Your task to perform on an android device: Search for Mexican restaurants on Maps Image 0: 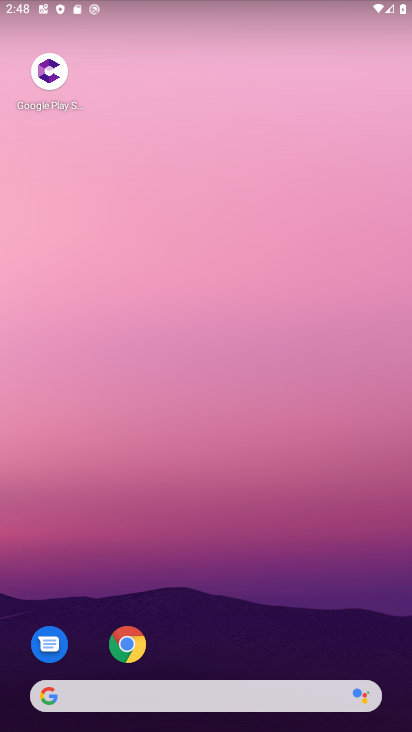
Step 0: drag from (222, 657) to (118, 275)
Your task to perform on an android device: Search for Mexican restaurants on Maps Image 1: 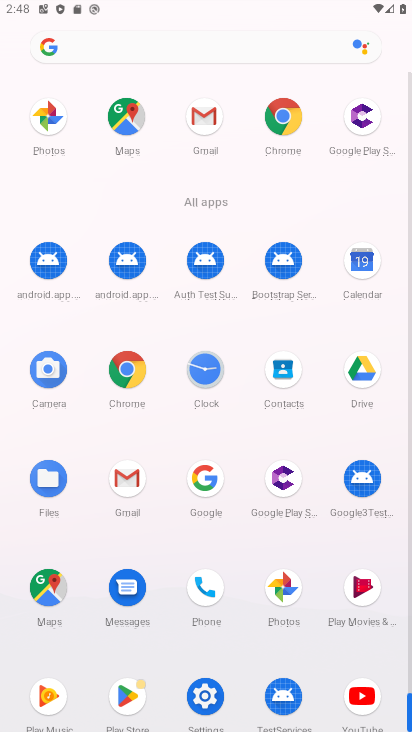
Step 1: click (59, 581)
Your task to perform on an android device: Search for Mexican restaurants on Maps Image 2: 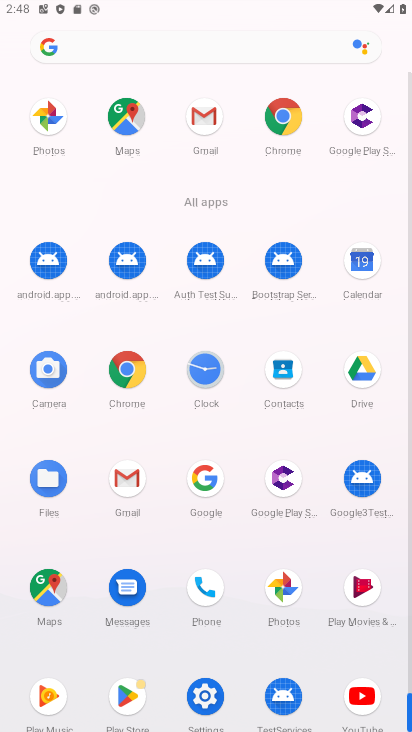
Step 2: click (55, 582)
Your task to perform on an android device: Search for Mexican restaurants on Maps Image 3: 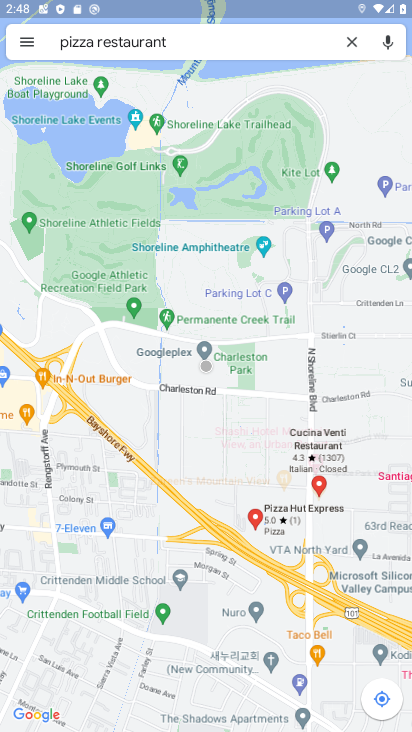
Step 3: click (177, 41)
Your task to perform on an android device: Search for Mexican restaurants on Maps Image 4: 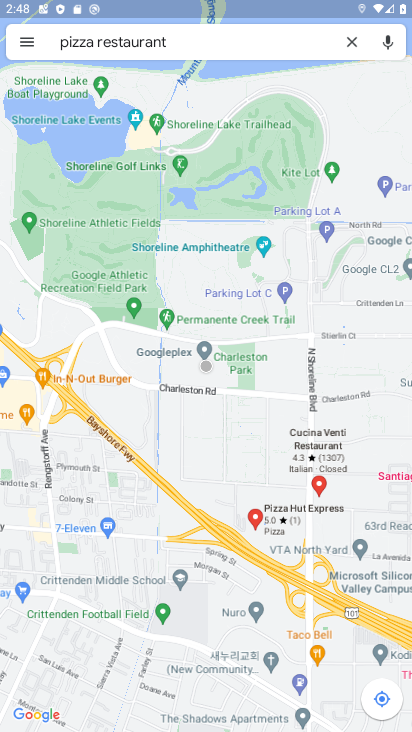
Step 4: click (177, 41)
Your task to perform on an android device: Search for Mexican restaurants on Maps Image 5: 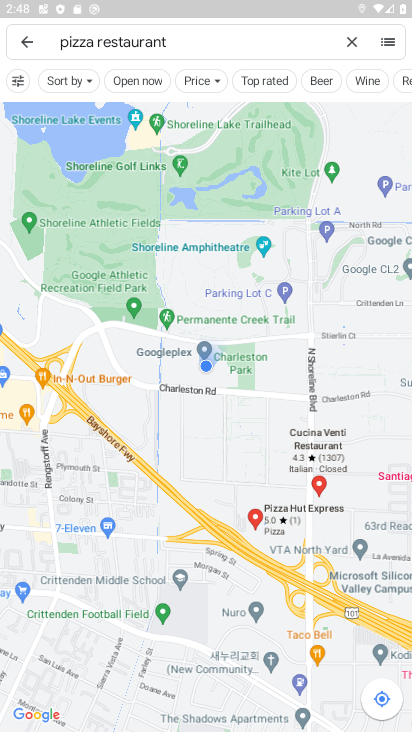
Step 5: click (351, 40)
Your task to perform on an android device: Search for Mexican restaurants on Maps Image 6: 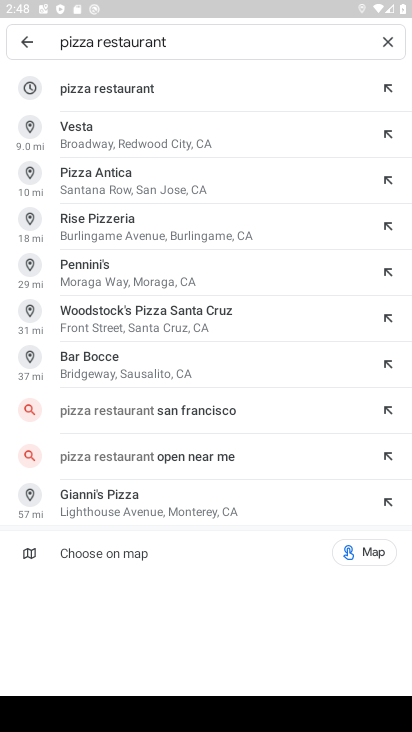
Step 6: click (384, 40)
Your task to perform on an android device: Search for Mexican restaurants on Maps Image 7: 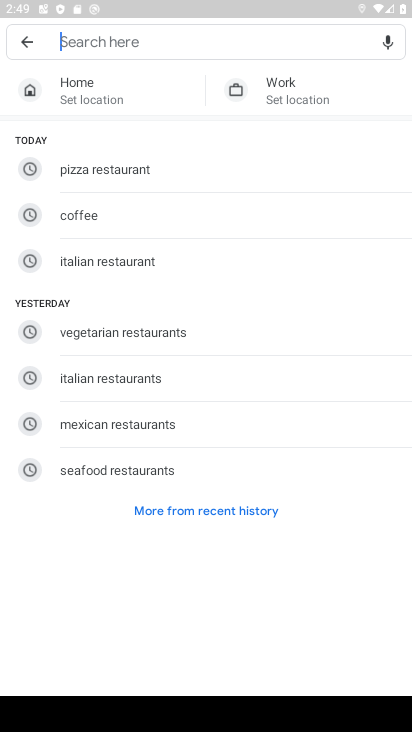
Step 7: click (127, 418)
Your task to perform on an android device: Search for Mexican restaurants on Maps Image 8: 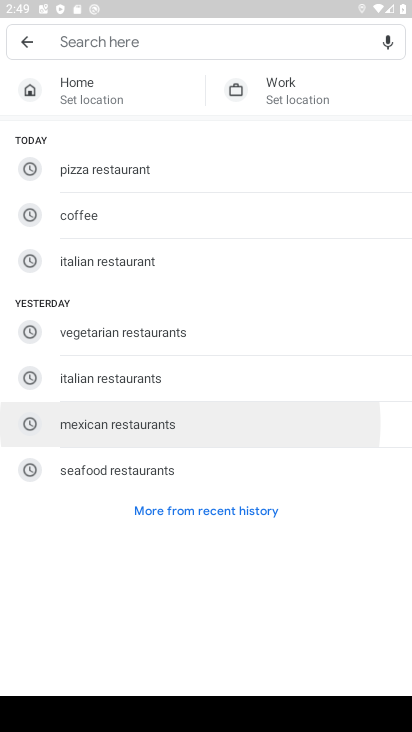
Step 8: click (128, 418)
Your task to perform on an android device: Search for Mexican restaurants on Maps Image 9: 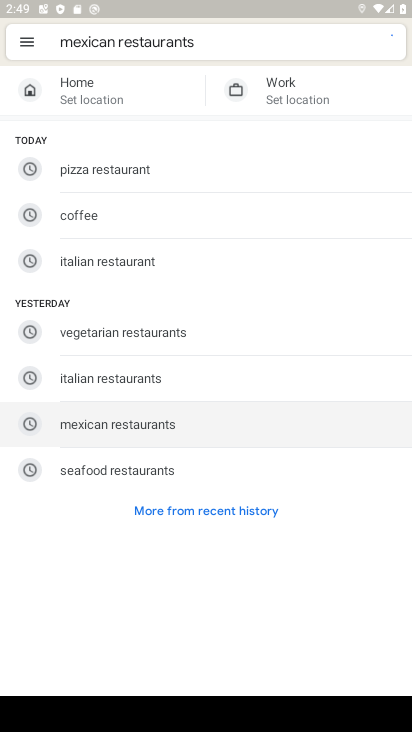
Step 9: click (129, 418)
Your task to perform on an android device: Search for Mexican restaurants on Maps Image 10: 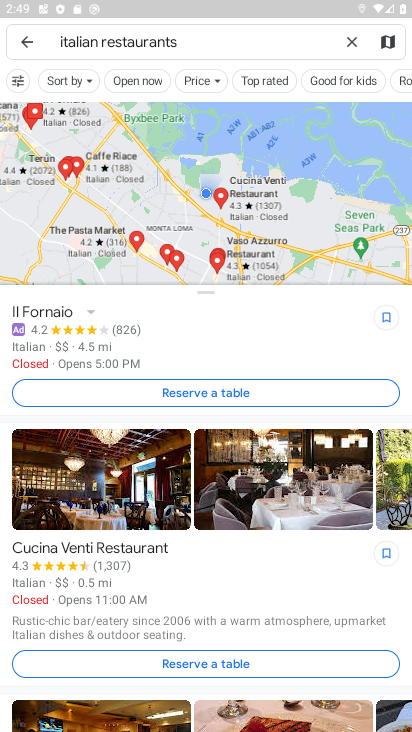
Step 10: task complete